Your task to perform on an android device: toggle data saver in the chrome app Image 0: 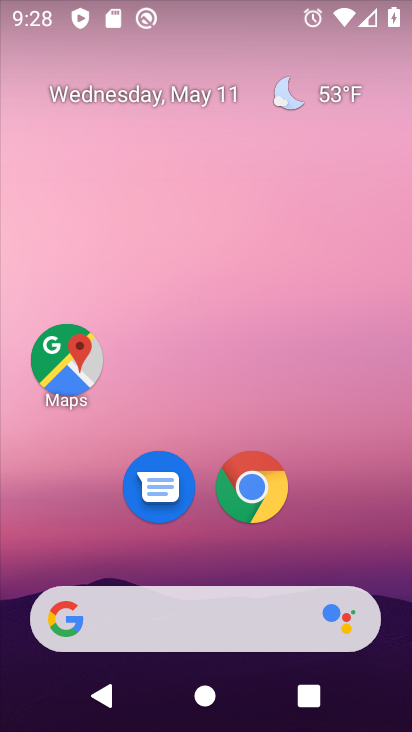
Step 0: click (244, 503)
Your task to perform on an android device: toggle data saver in the chrome app Image 1: 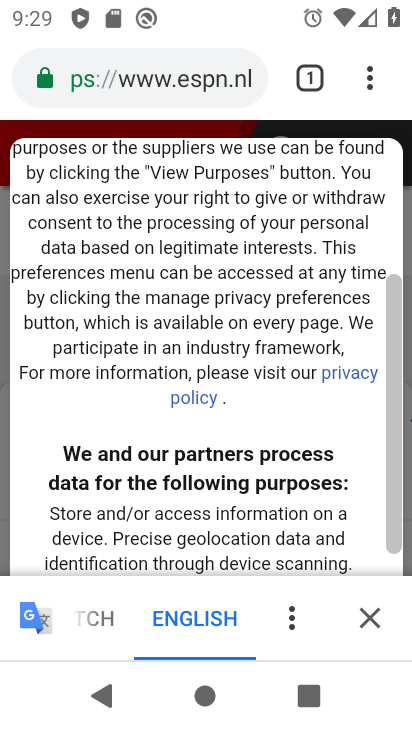
Step 1: drag from (368, 70) to (180, 545)
Your task to perform on an android device: toggle data saver in the chrome app Image 2: 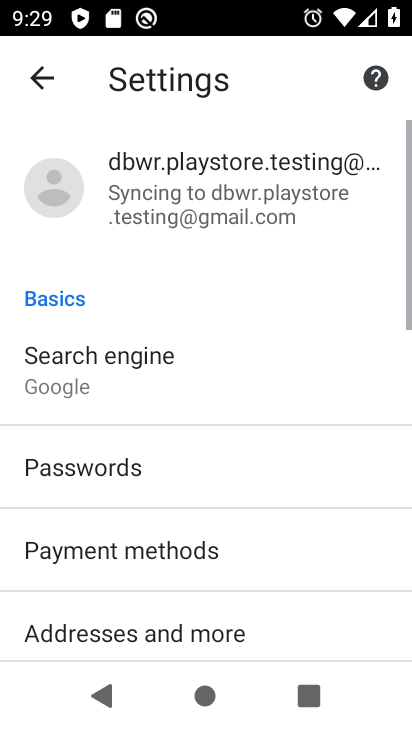
Step 2: drag from (261, 626) to (239, 266)
Your task to perform on an android device: toggle data saver in the chrome app Image 3: 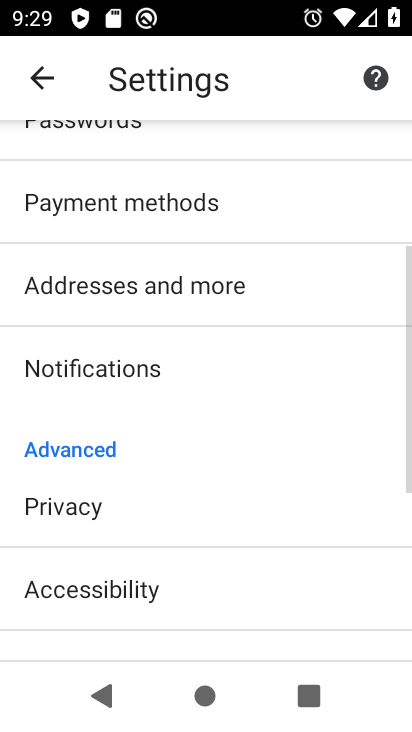
Step 3: drag from (211, 588) to (217, 284)
Your task to perform on an android device: toggle data saver in the chrome app Image 4: 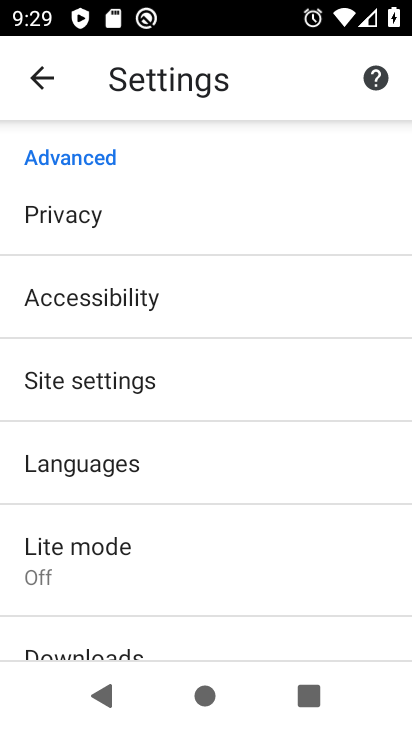
Step 4: drag from (214, 552) to (240, 305)
Your task to perform on an android device: toggle data saver in the chrome app Image 5: 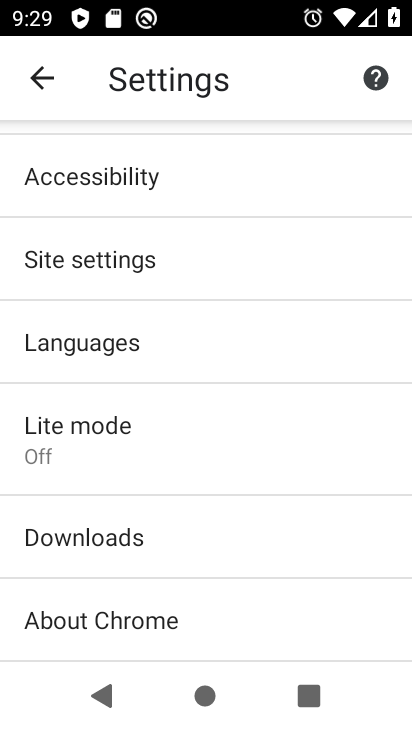
Step 5: drag from (215, 571) to (210, 482)
Your task to perform on an android device: toggle data saver in the chrome app Image 6: 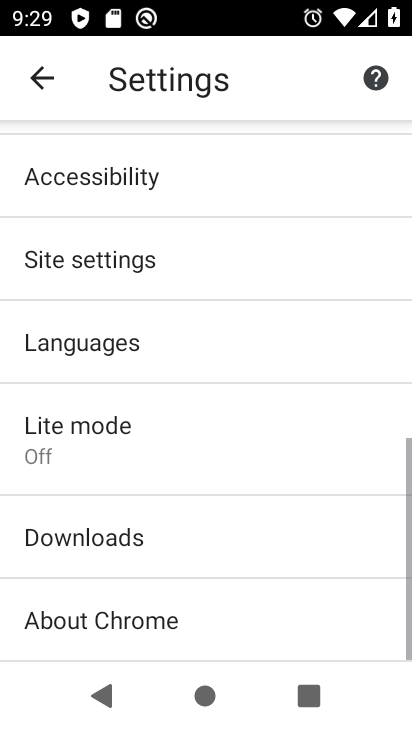
Step 6: click (185, 404)
Your task to perform on an android device: toggle data saver in the chrome app Image 7: 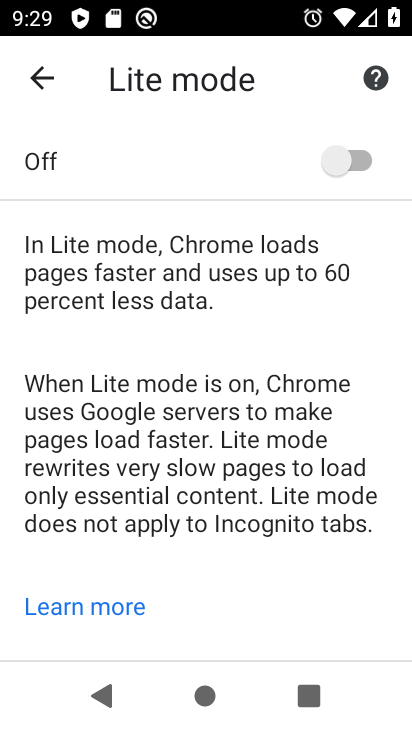
Step 7: click (362, 162)
Your task to perform on an android device: toggle data saver in the chrome app Image 8: 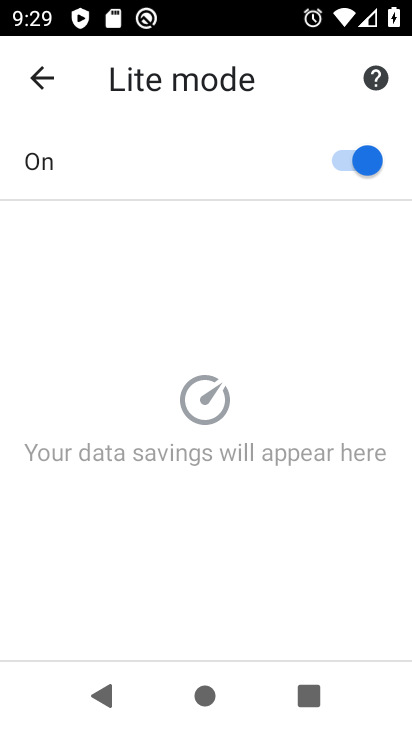
Step 8: task complete